Your task to perform on an android device: Open the calendar app, open the side menu, and click the "Day" option Image 0: 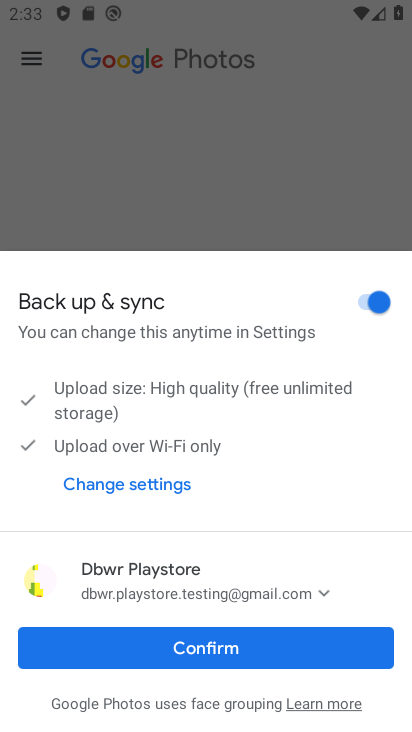
Step 0: press home button
Your task to perform on an android device: Open the calendar app, open the side menu, and click the "Day" option Image 1: 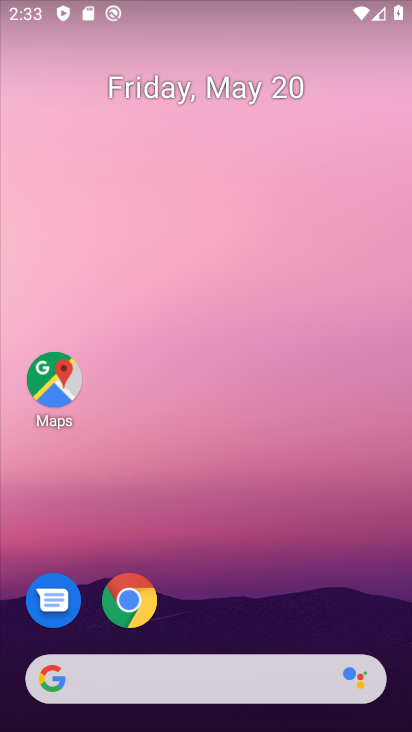
Step 1: drag from (367, 604) to (351, 208)
Your task to perform on an android device: Open the calendar app, open the side menu, and click the "Day" option Image 2: 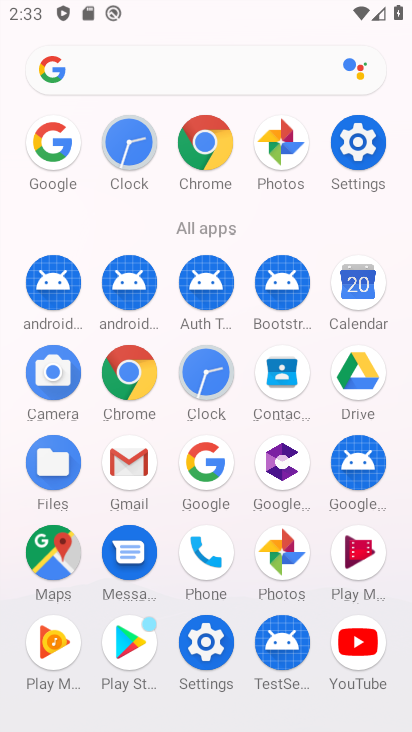
Step 2: click (363, 300)
Your task to perform on an android device: Open the calendar app, open the side menu, and click the "Day" option Image 3: 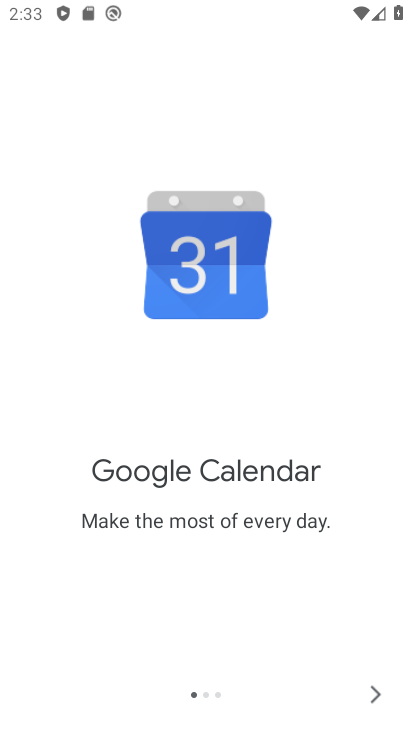
Step 3: click (373, 696)
Your task to perform on an android device: Open the calendar app, open the side menu, and click the "Day" option Image 4: 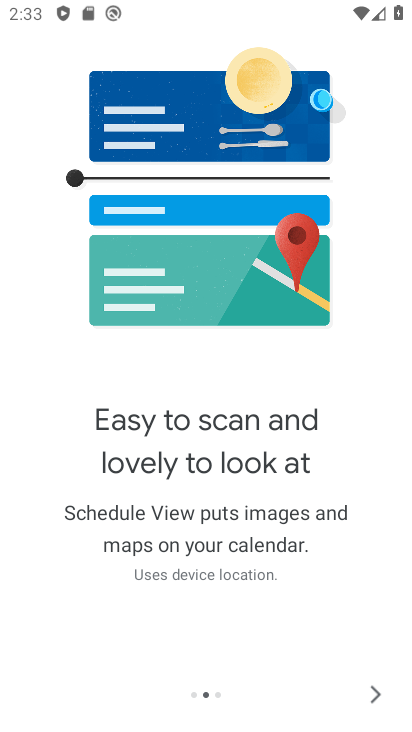
Step 4: click (373, 696)
Your task to perform on an android device: Open the calendar app, open the side menu, and click the "Day" option Image 5: 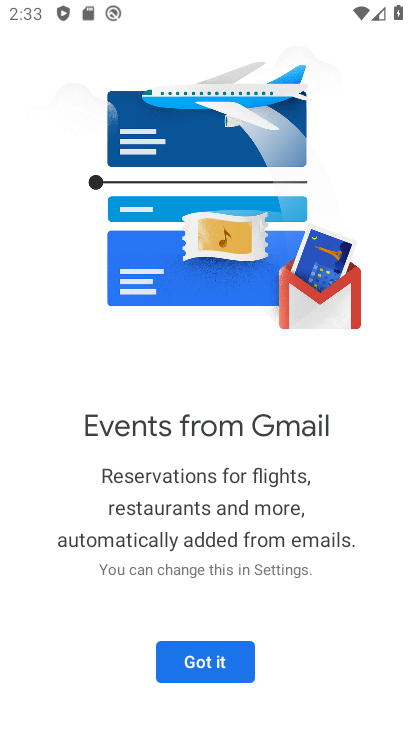
Step 5: click (219, 672)
Your task to perform on an android device: Open the calendar app, open the side menu, and click the "Day" option Image 6: 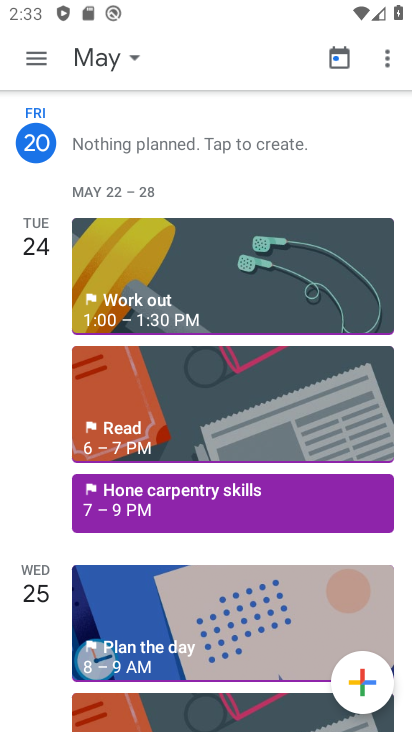
Step 6: click (27, 71)
Your task to perform on an android device: Open the calendar app, open the side menu, and click the "Day" option Image 7: 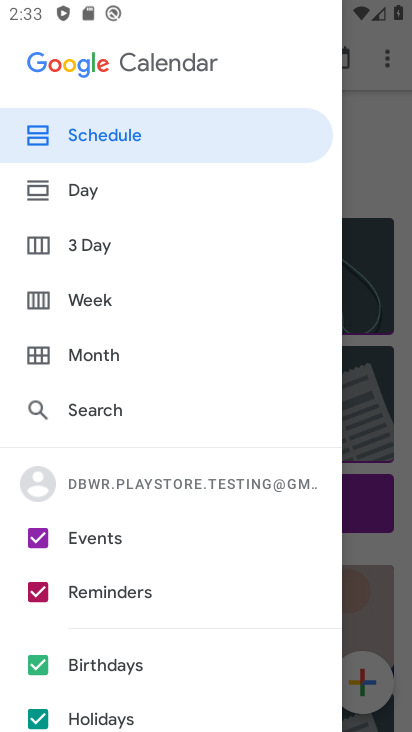
Step 7: click (121, 196)
Your task to perform on an android device: Open the calendar app, open the side menu, and click the "Day" option Image 8: 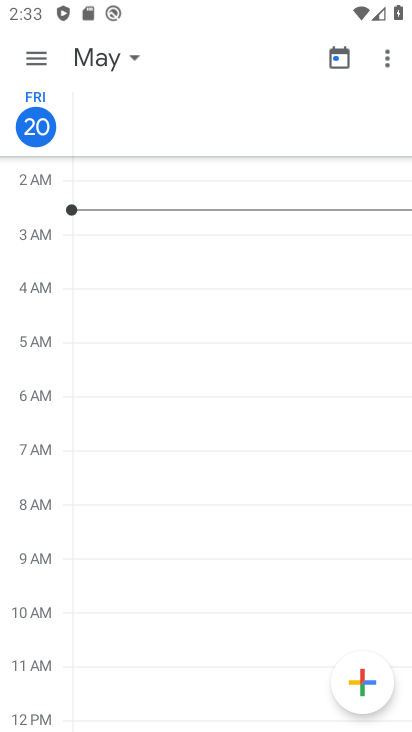
Step 8: task complete